Your task to perform on an android device: turn off airplane mode Image 0: 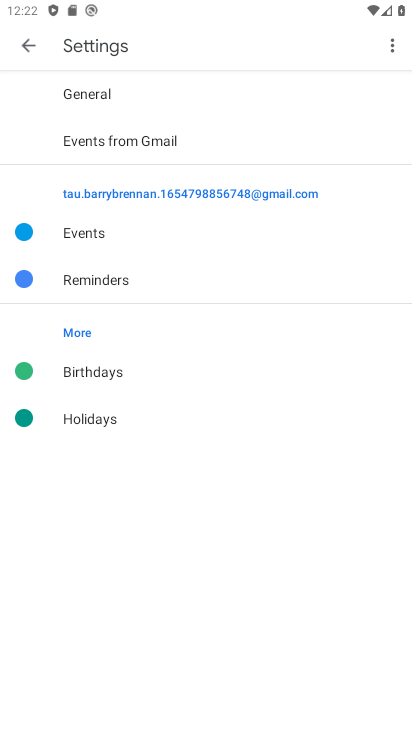
Step 0: press home button
Your task to perform on an android device: turn off airplane mode Image 1: 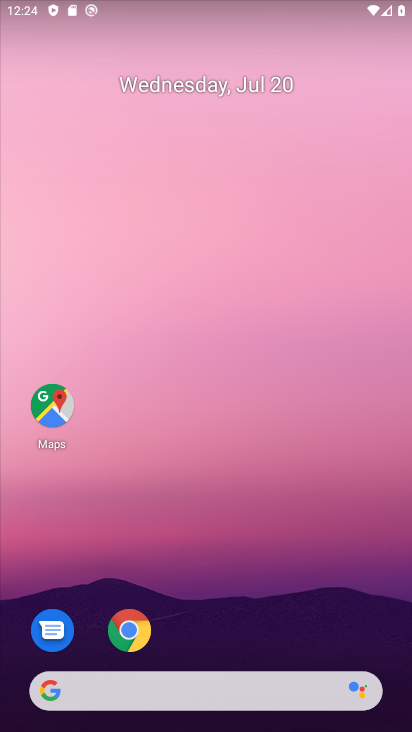
Step 1: task complete